Your task to perform on an android device: turn on showing notifications on the lock screen Image 0: 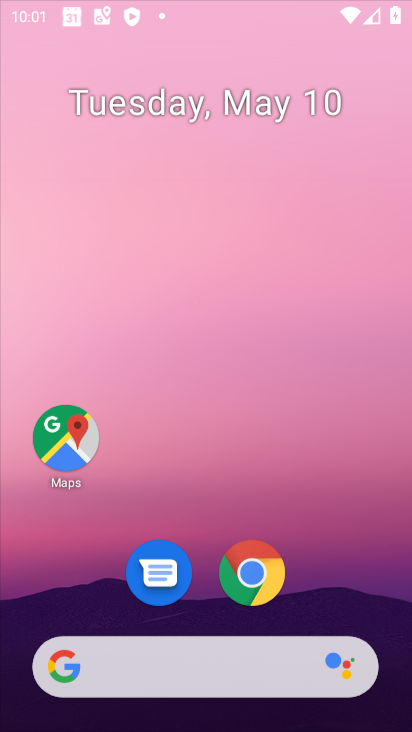
Step 0: drag from (355, 579) to (231, 113)
Your task to perform on an android device: turn on showing notifications on the lock screen Image 1: 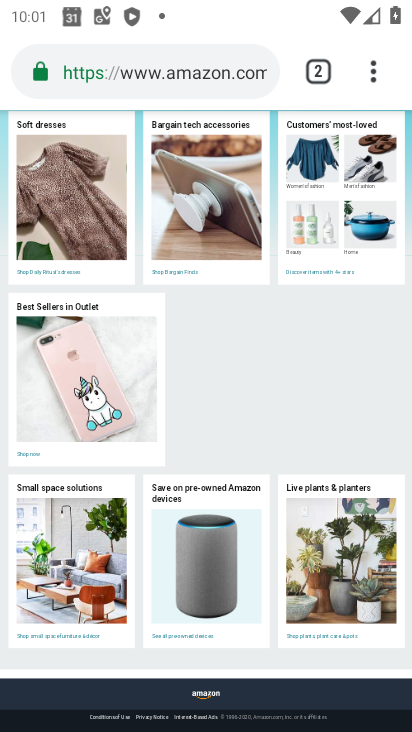
Step 1: press home button
Your task to perform on an android device: turn on showing notifications on the lock screen Image 2: 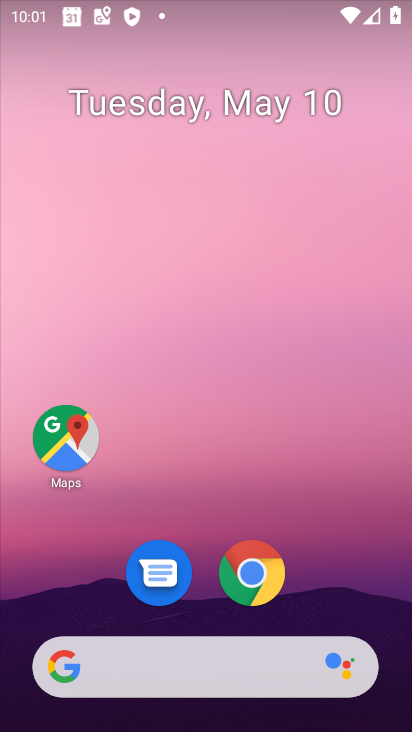
Step 2: drag from (320, 513) to (211, 173)
Your task to perform on an android device: turn on showing notifications on the lock screen Image 3: 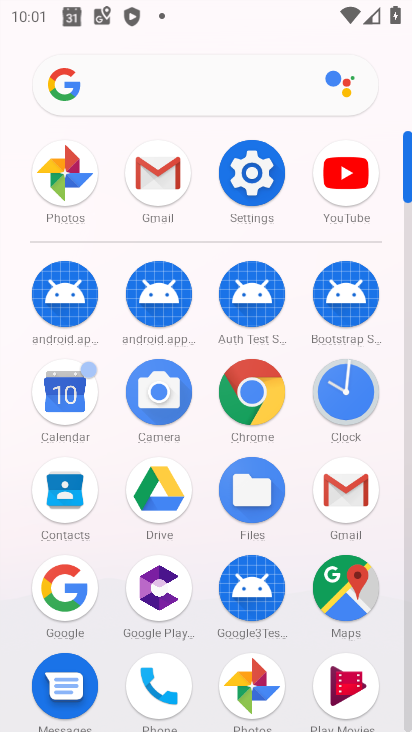
Step 3: click (252, 169)
Your task to perform on an android device: turn on showing notifications on the lock screen Image 4: 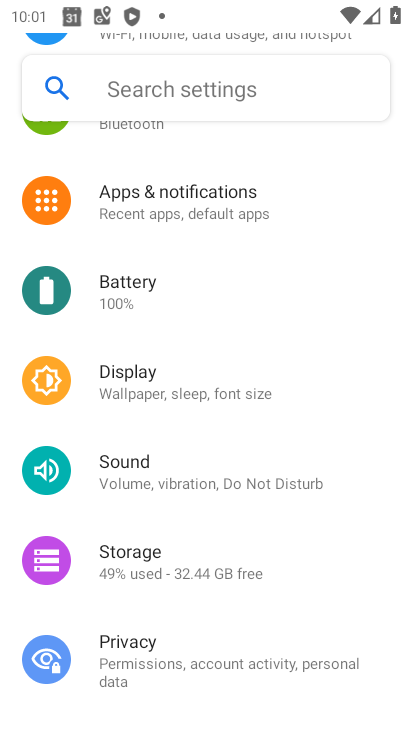
Step 4: click (178, 191)
Your task to perform on an android device: turn on showing notifications on the lock screen Image 5: 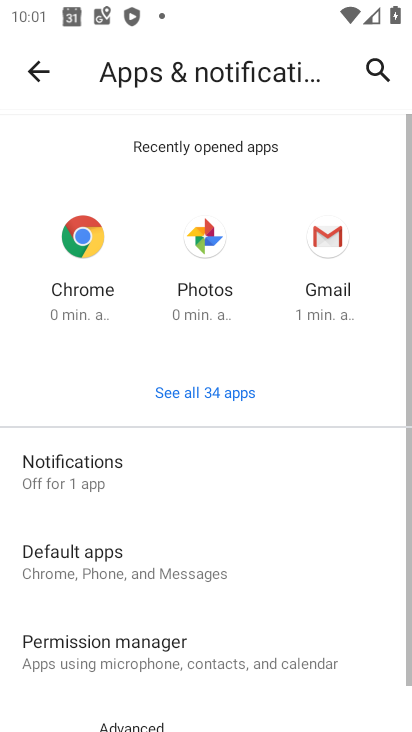
Step 5: drag from (168, 497) to (118, 285)
Your task to perform on an android device: turn on showing notifications on the lock screen Image 6: 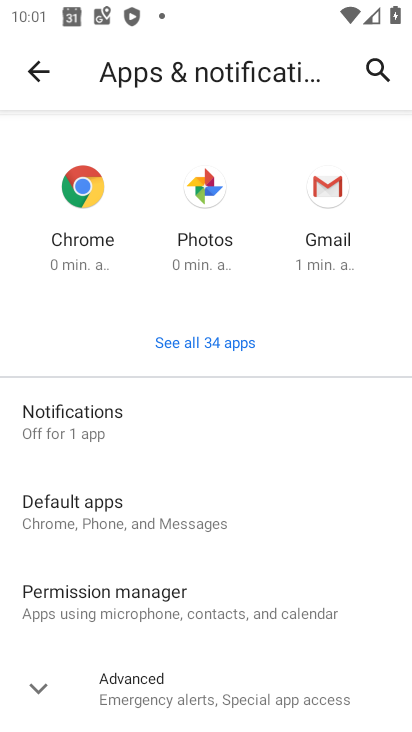
Step 6: click (67, 411)
Your task to perform on an android device: turn on showing notifications on the lock screen Image 7: 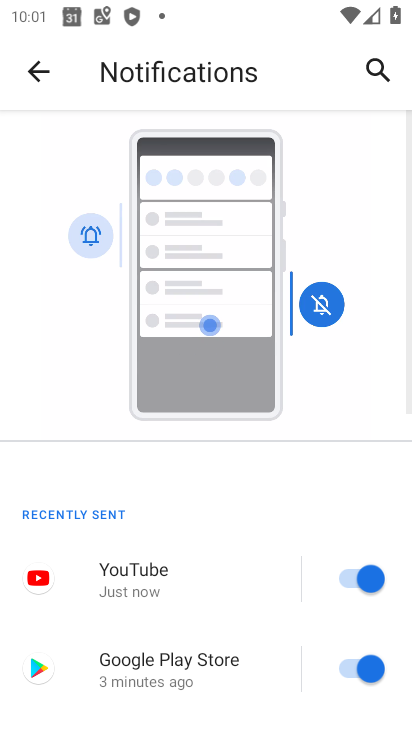
Step 7: drag from (248, 553) to (180, 223)
Your task to perform on an android device: turn on showing notifications on the lock screen Image 8: 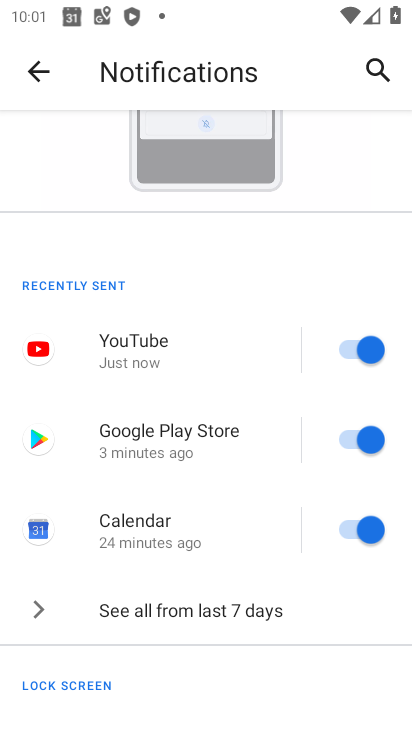
Step 8: drag from (209, 541) to (172, 301)
Your task to perform on an android device: turn on showing notifications on the lock screen Image 9: 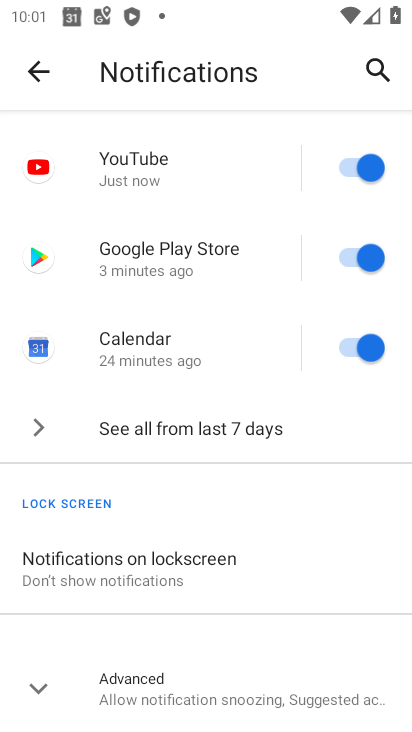
Step 9: click (169, 553)
Your task to perform on an android device: turn on showing notifications on the lock screen Image 10: 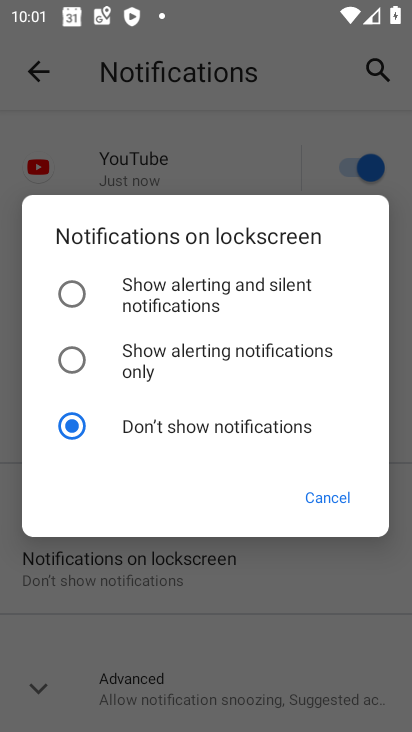
Step 10: click (69, 297)
Your task to perform on an android device: turn on showing notifications on the lock screen Image 11: 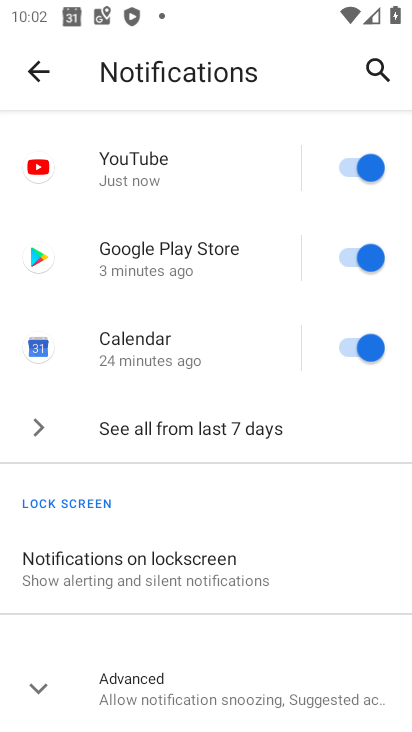
Step 11: task complete